Your task to perform on an android device: turn off data saver in the chrome app Image 0: 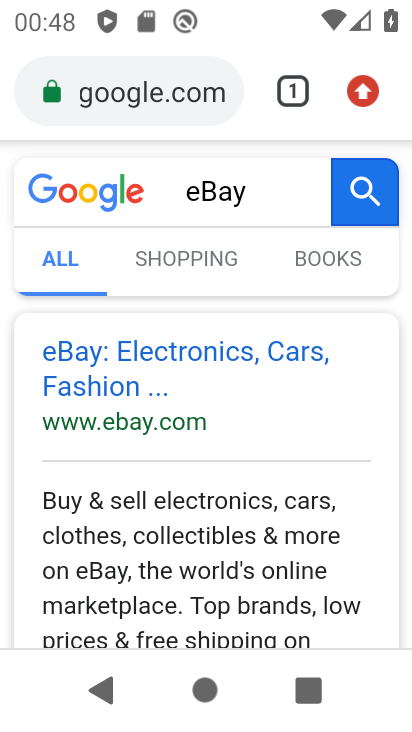
Step 0: click (359, 94)
Your task to perform on an android device: turn off data saver in the chrome app Image 1: 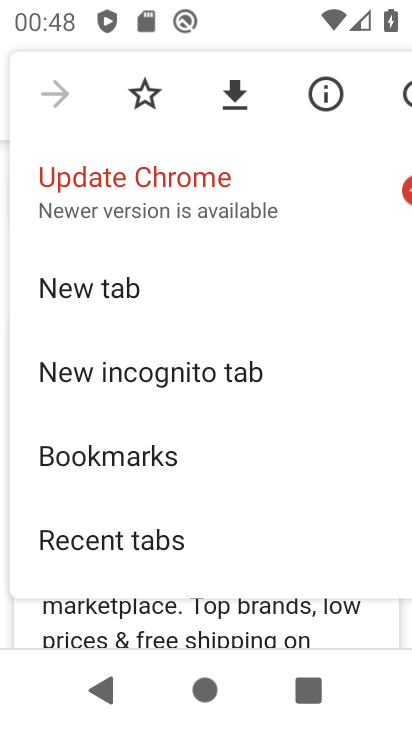
Step 1: drag from (136, 559) to (199, 166)
Your task to perform on an android device: turn off data saver in the chrome app Image 2: 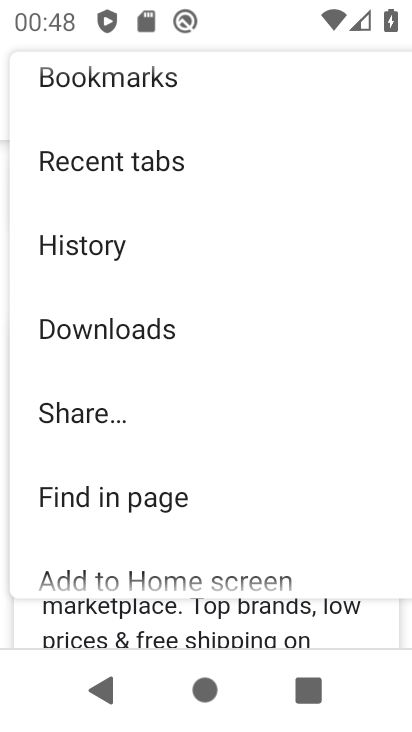
Step 2: drag from (139, 459) to (186, 127)
Your task to perform on an android device: turn off data saver in the chrome app Image 3: 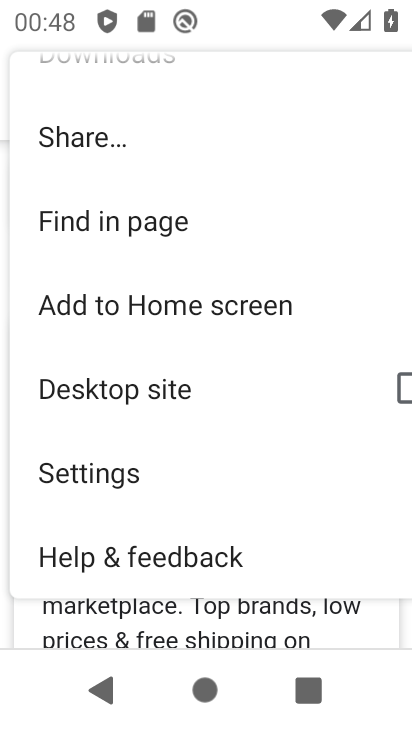
Step 3: click (96, 475)
Your task to perform on an android device: turn off data saver in the chrome app Image 4: 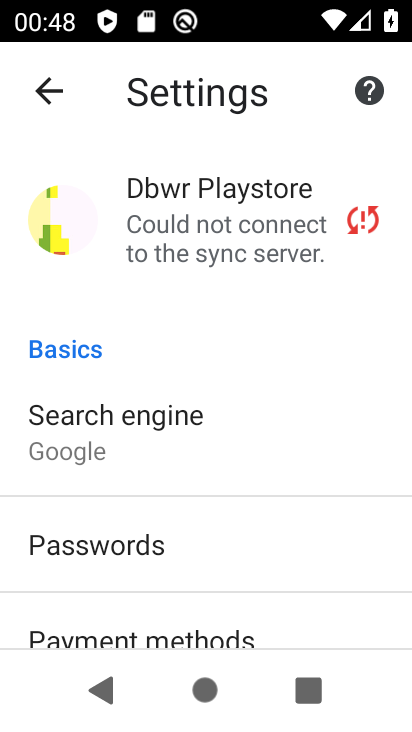
Step 4: drag from (73, 539) to (148, 232)
Your task to perform on an android device: turn off data saver in the chrome app Image 5: 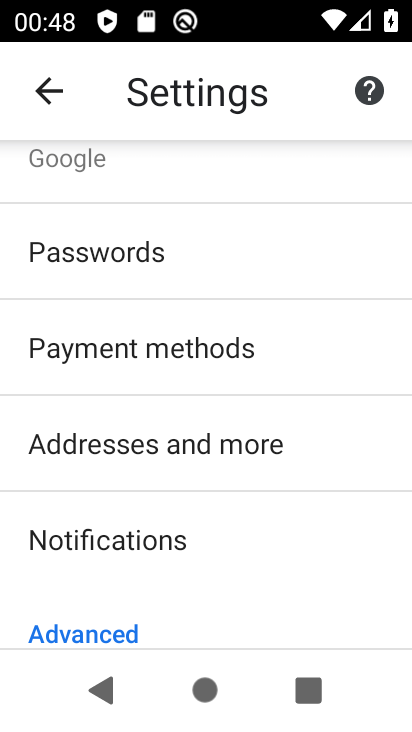
Step 5: drag from (116, 533) to (199, 224)
Your task to perform on an android device: turn off data saver in the chrome app Image 6: 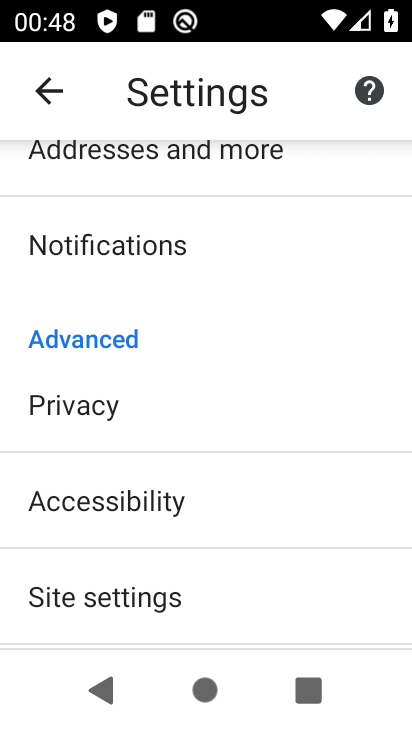
Step 6: drag from (100, 553) to (143, 336)
Your task to perform on an android device: turn off data saver in the chrome app Image 7: 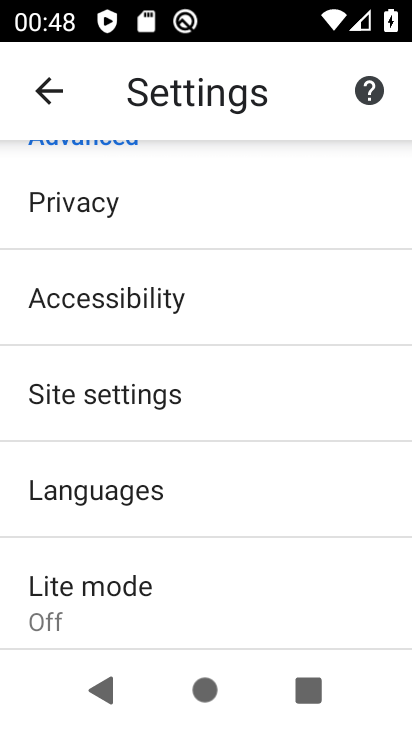
Step 7: click (89, 590)
Your task to perform on an android device: turn off data saver in the chrome app Image 8: 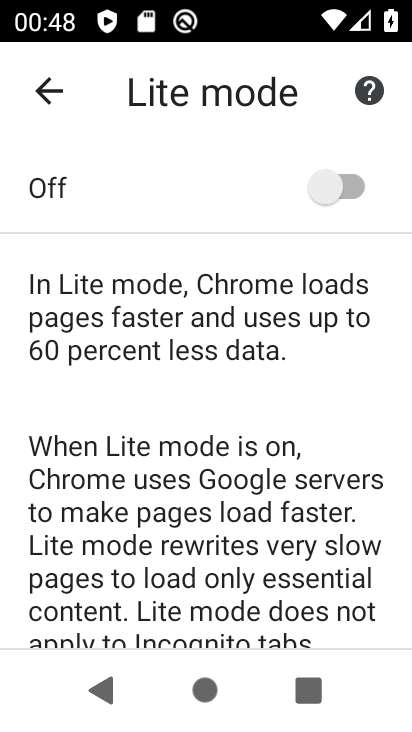
Step 8: task complete